Your task to perform on an android device: check out phone information Image 0: 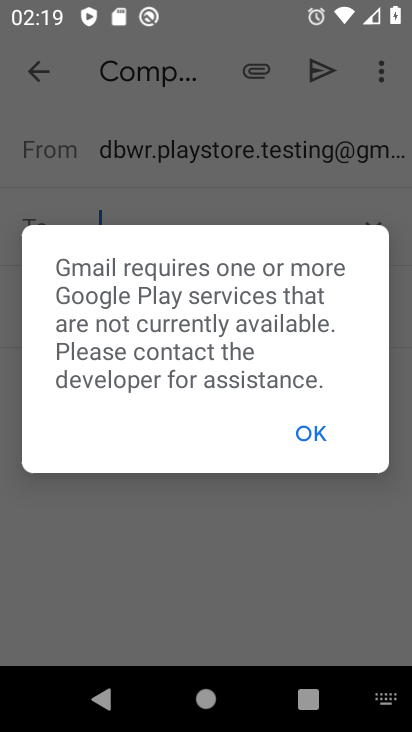
Step 0: press home button
Your task to perform on an android device: check out phone information Image 1: 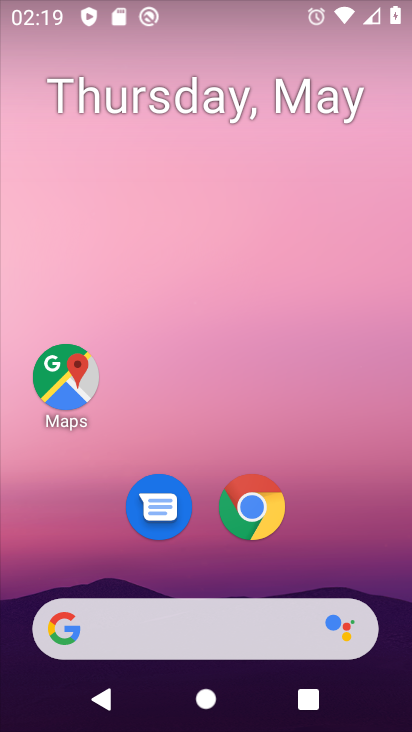
Step 1: drag from (370, 541) to (323, 135)
Your task to perform on an android device: check out phone information Image 2: 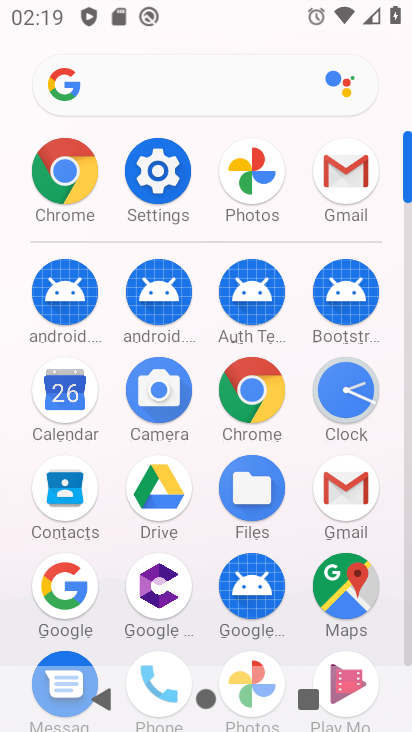
Step 2: click (144, 147)
Your task to perform on an android device: check out phone information Image 3: 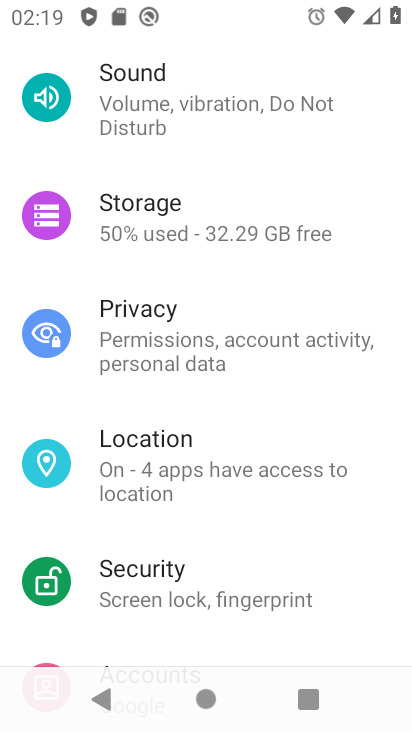
Step 3: drag from (144, 147) to (219, 567)
Your task to perform on an android device: check out phone information Image 4: 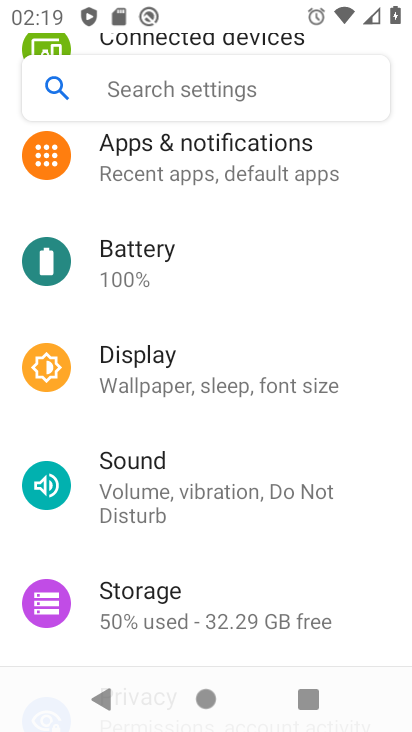
Step 4: drag from (270, 561) to (214, 58)
Your task to perform on an android device: check out phone information Image 5: 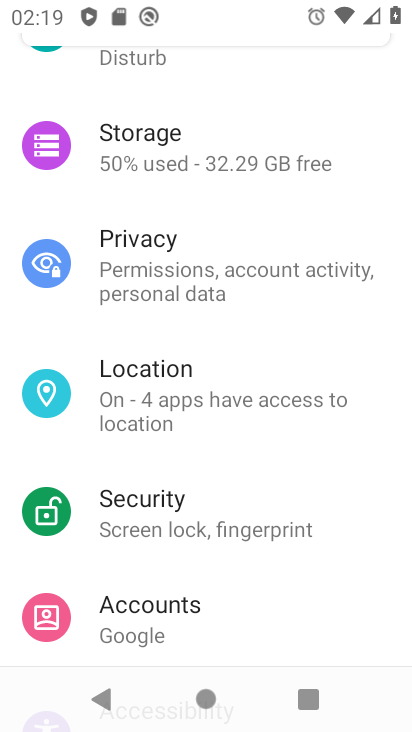
Step 5: drag from (213, 536) to (190, 86)
Your task to perform on an android device: check out phone information Image 6: 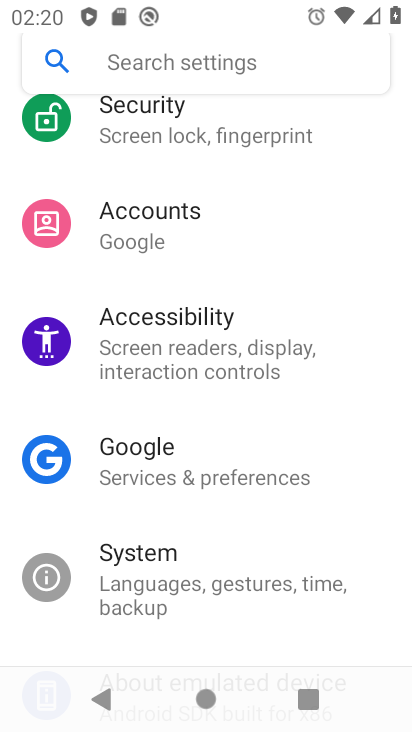
Step 6: drag from (223, 629) to (212, 350)
Your task to perform on an android device: check out phone information Image 7: 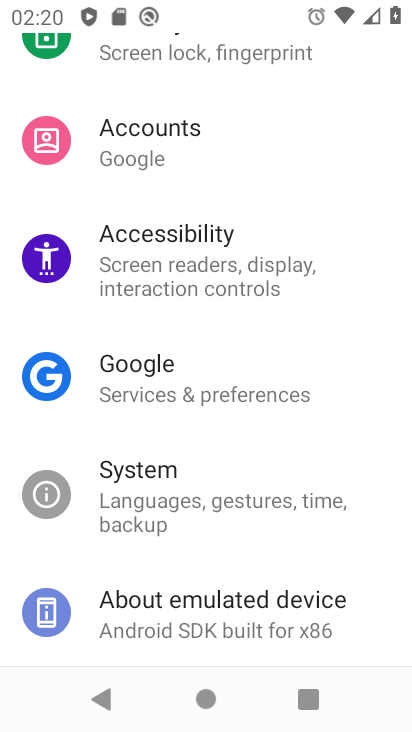
Step 7: click (234, 592)
Your task to perform on an android device: check out phone information Image 8: 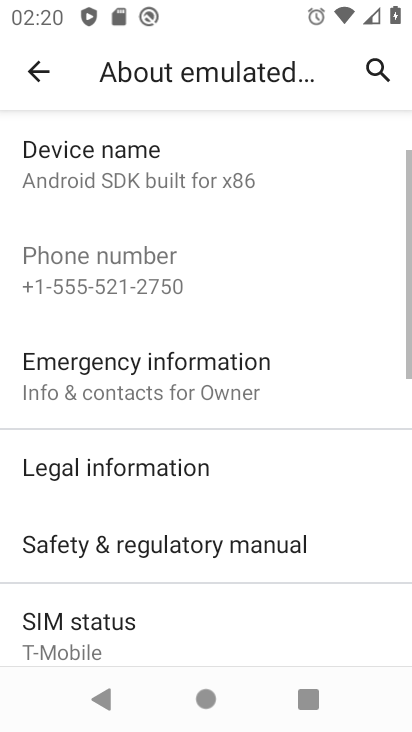
Step 8: task complete